Your task to perform on an android device: Show me popular videos on Youtube Image 0: 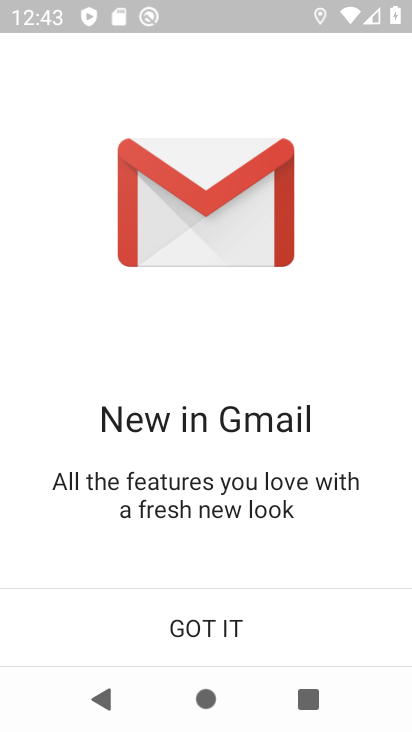
Step 0: click (288, 618)
Your task to perform on an android device: Show me popular videos on Youtube Image 1: 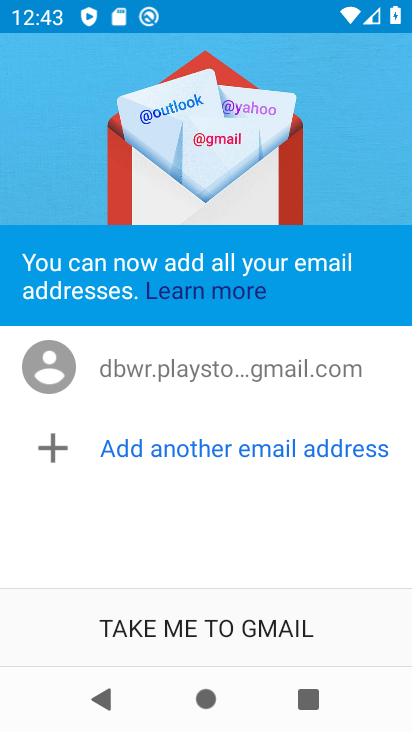
Step 1: click (288, 616)
Your task to perform on an android device: Show me popular videos on Youtube Image 2: 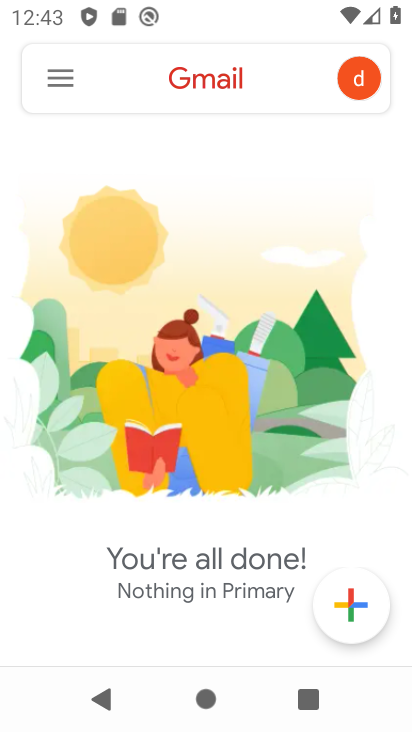
Step 2: press home button
Your task to perform on an android device: Show me popular videos on Youtube Image 3: 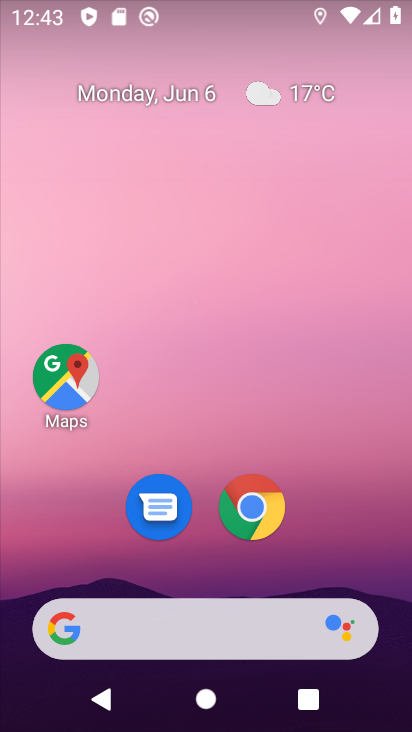
Step 3: drag from (302, 406) to (323, 6)
Your task to perform on an android device: Show me popular videos on Youtube Image 4: 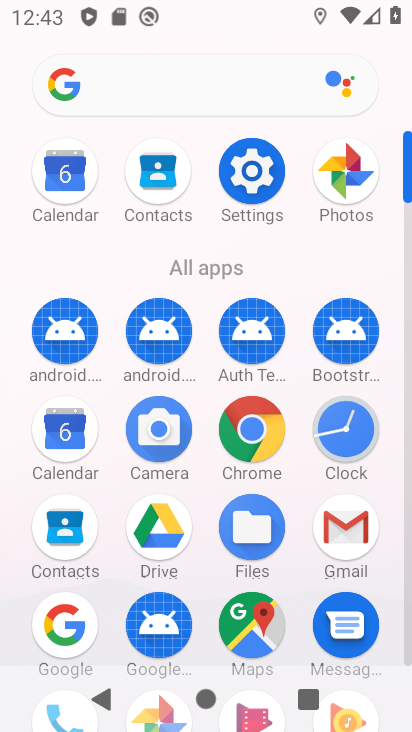
Step 4: drag from (299, 467) to (306, 140)
Your task to perform on an android device: Show me popular videos on Youtube Image 5: 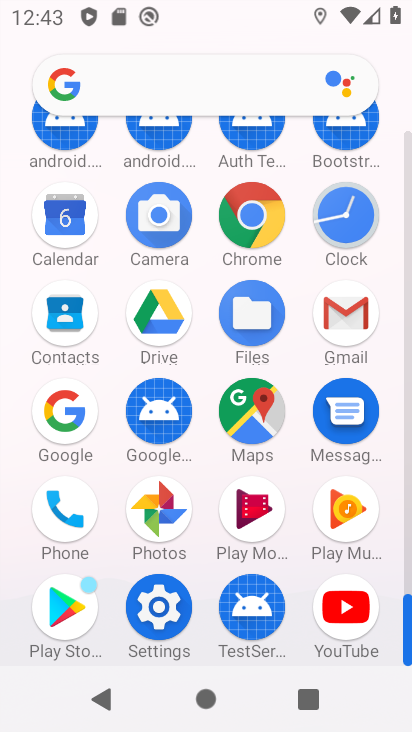
Step 5: click (349, 599)
Your task to perform on an android device: Show me popular videos on Youtube Image 6: 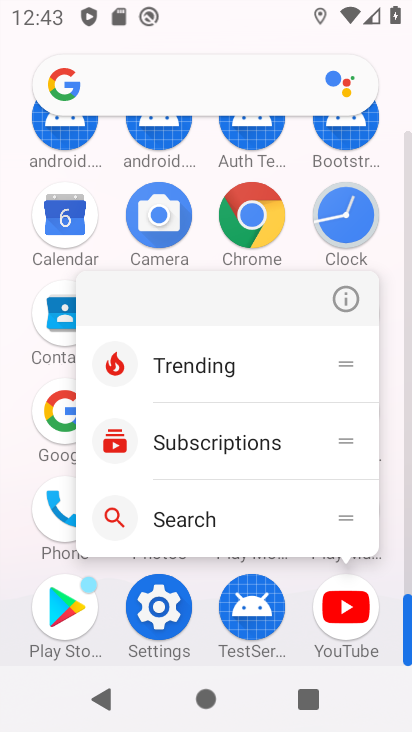
Step 6: click (354, 607)
Your task to perform on an android device: Show me popular videos on Youtube Image 7: 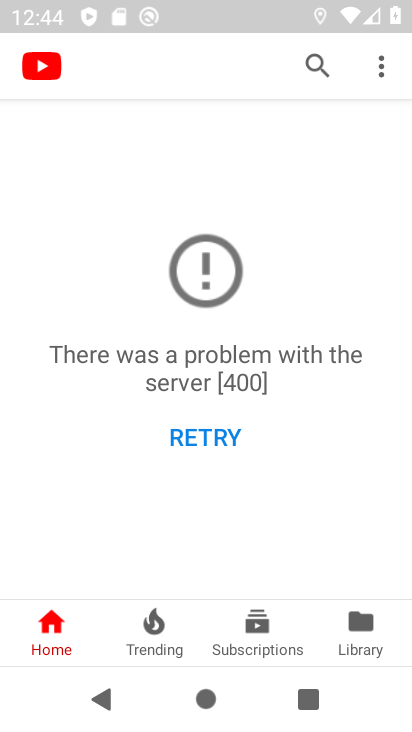
Step 7: click (316, 64)
Your task to perform on an android device: Show me popular videos on Youtube Image 8: 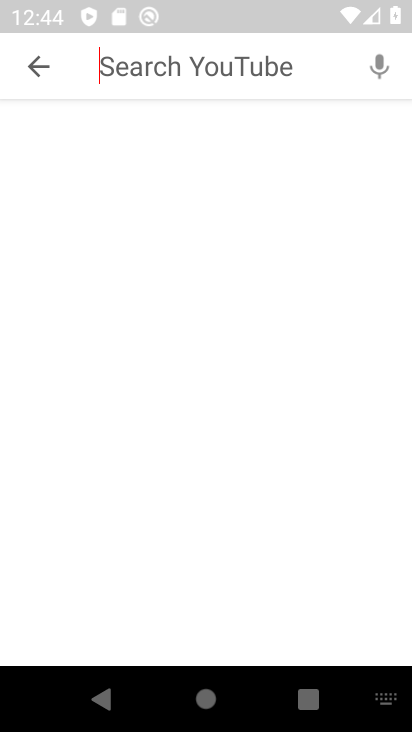
Step 8: type "popular videos"
Your task to perform on an android device: Show me popular videos on Youtube Image 9: 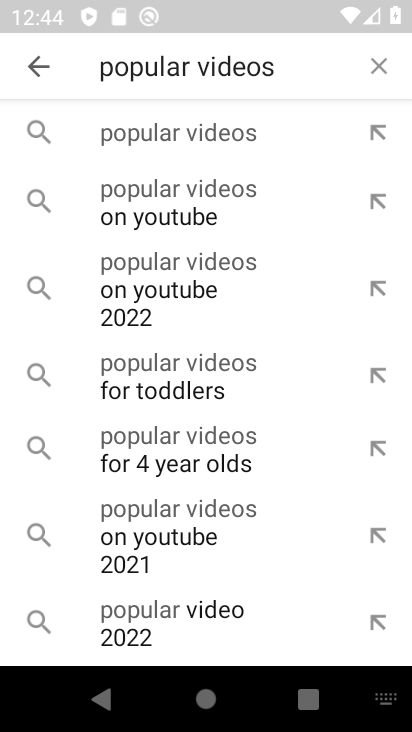
Step 9: click (265, 201)
Your task to perform on an android device: Show me popular videos on Youtube Image 10: 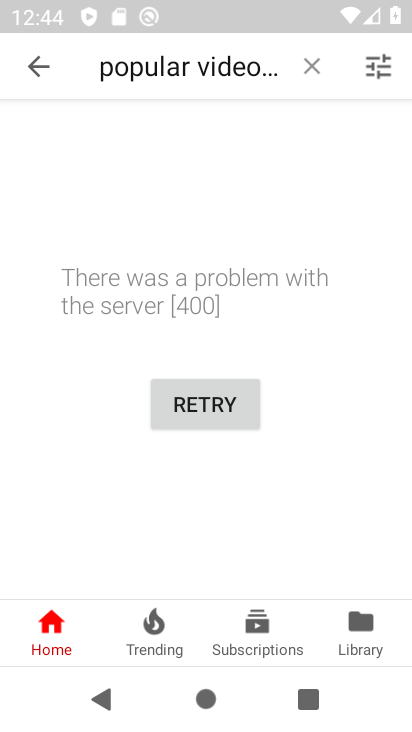
Step 10: click (221, 392)
Your task to perform on an android device: Show me popular videos on Youtube Image 11: 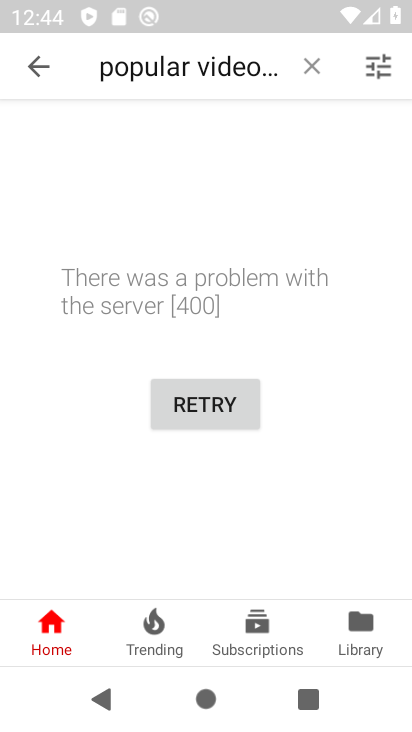
Step 11: click (221, 392)
Your task to perform on an android device: Show me popular videos on Youtube Image 12: 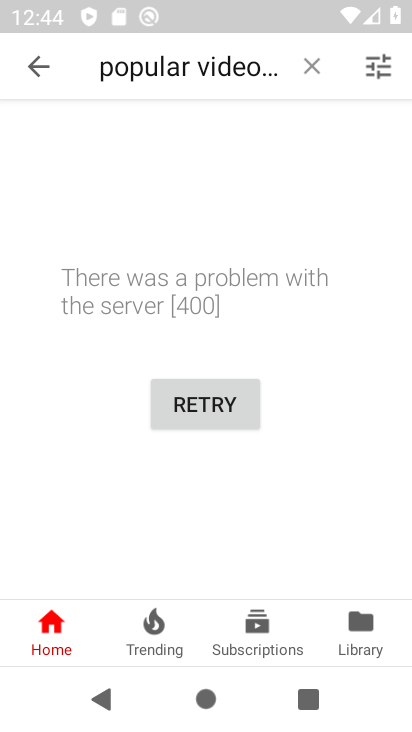
Step 12: click (221, 392)
Your task to perform on an android device: Show me popular videos on Youtube Image 13: 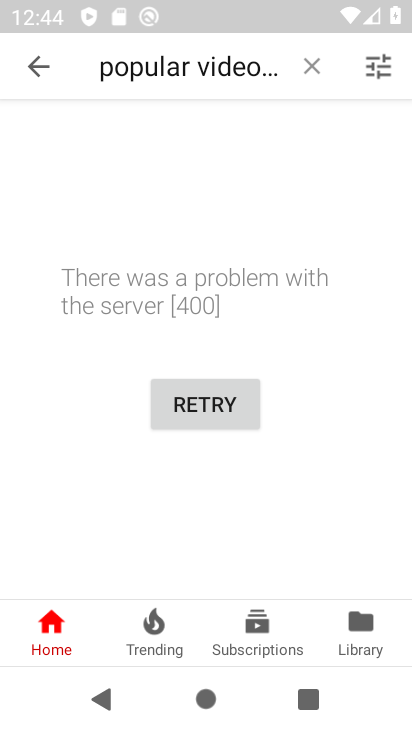
Step 13: task complete